Your task to perform on an android device: delete location history Image 0: 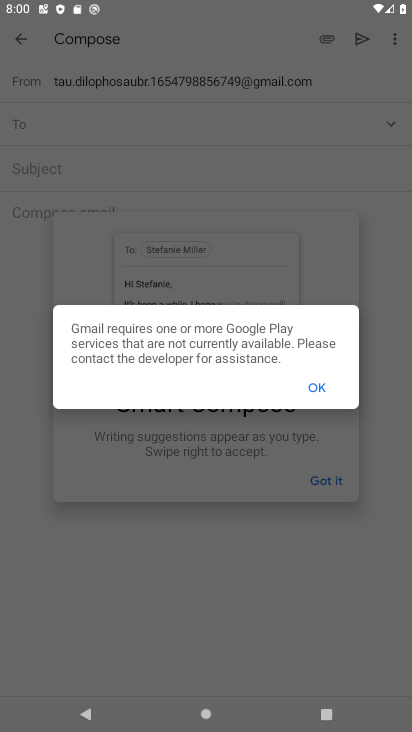
Step 0: press home button
Your task to perform on an android device: delete location history Image 1: 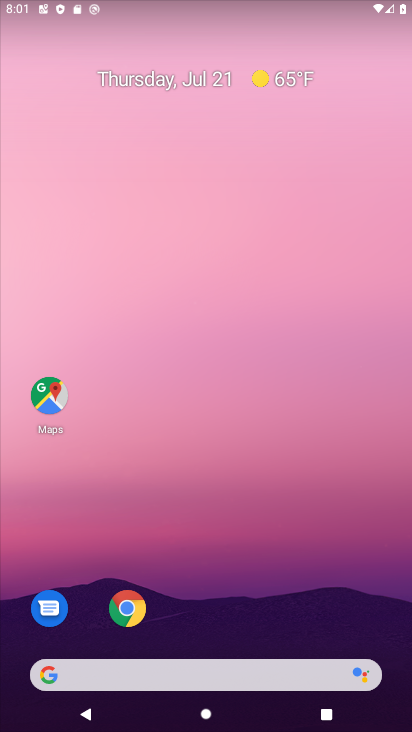
Step 1: click (51, 397)
Your task to perform on an android device: delete location history Image 2: 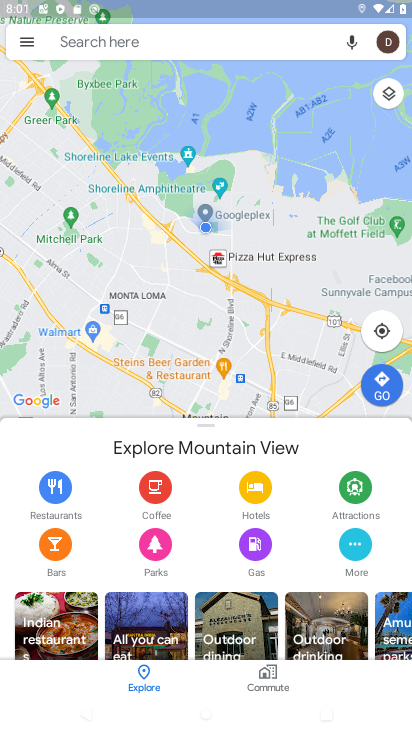
Step 2: click (29, 42)
Your task to perform on an android device: delete location history Image 3: 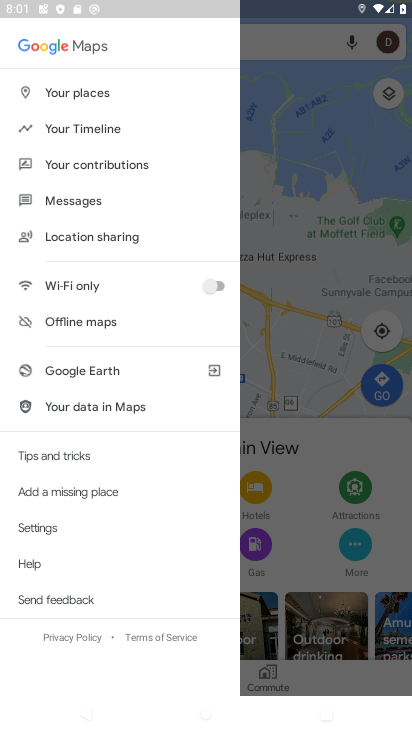
Step 3: click (42, 528)
Your task to perform on an android device: delete location history Image 4: 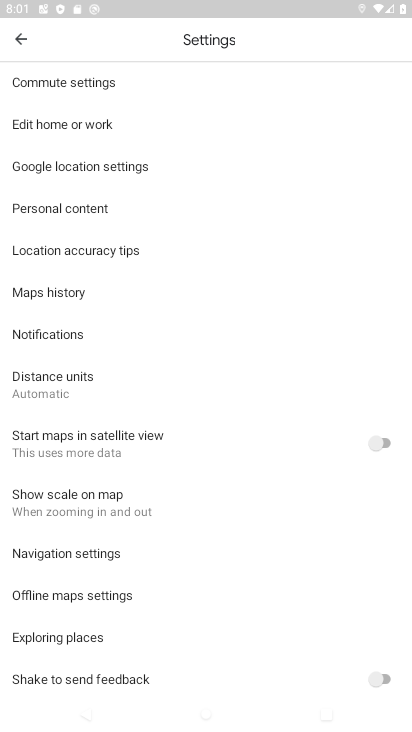
Step 4: click (88, 210)
Your task to perform on an android device: delete location history Image 5: 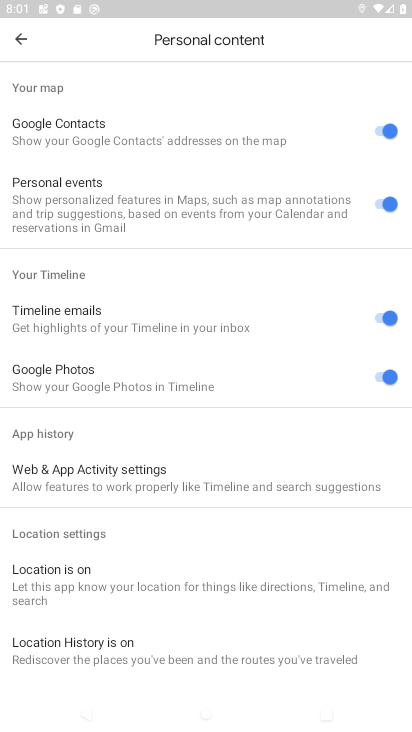
Step 5: drag from (189, 513) to (193, 415)
Your task to perform on an android device: delete location history Image 6: 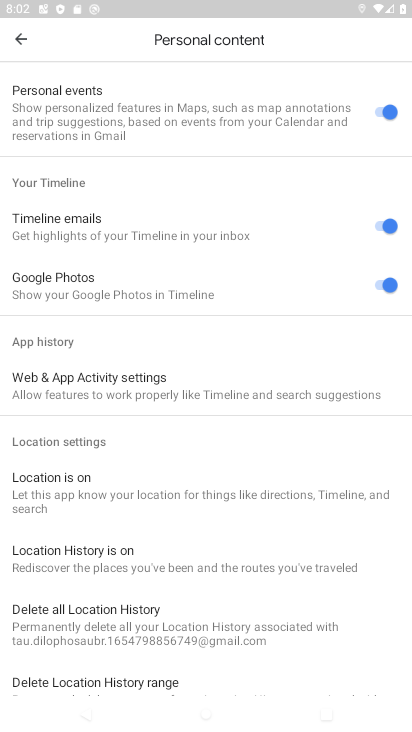
Step 6: drag from (179, 545) to (208, 458)
Your task to perform on an android device: delete location history Image 7: 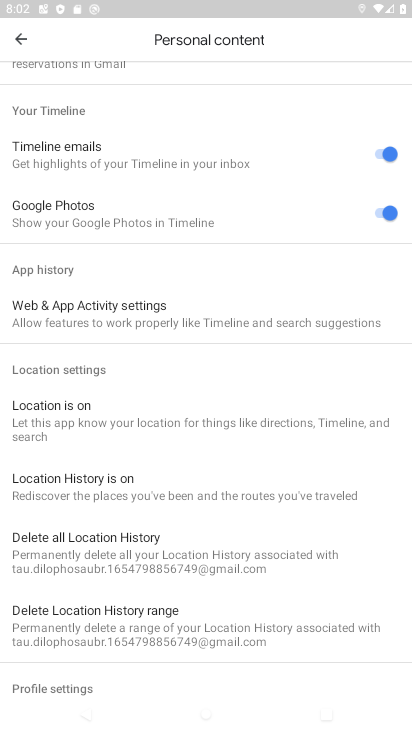
Step 7: click (129, 555)
Your task to perform on an android device: delete location history Image 8: 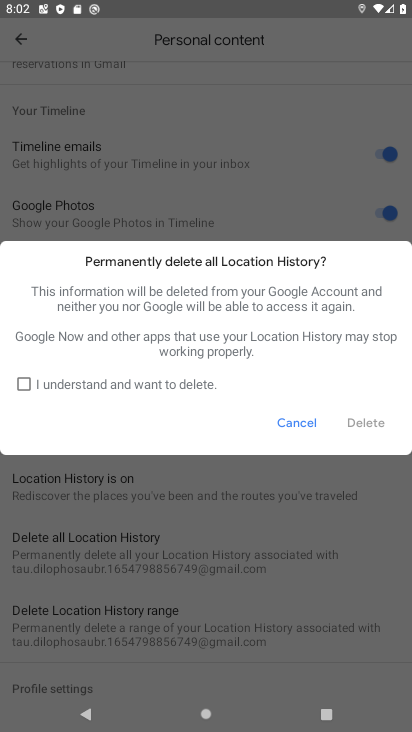
Step 8: click (27, 381)
Your task to perform on an android device: delete location history Image 9: 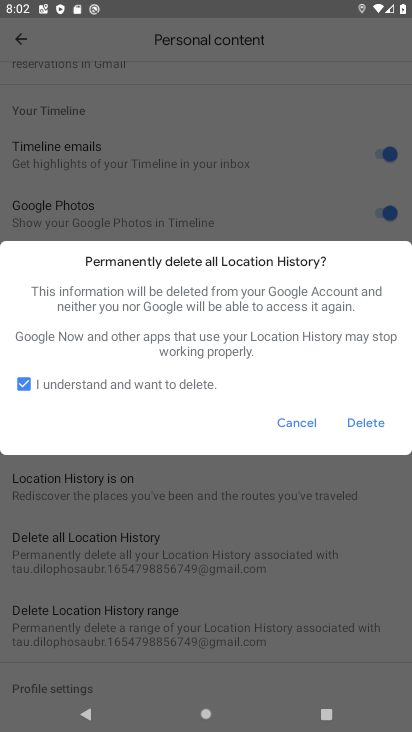
Step 9: click (368, 426)
Your task to perform on an android device: delete location history Image 10: 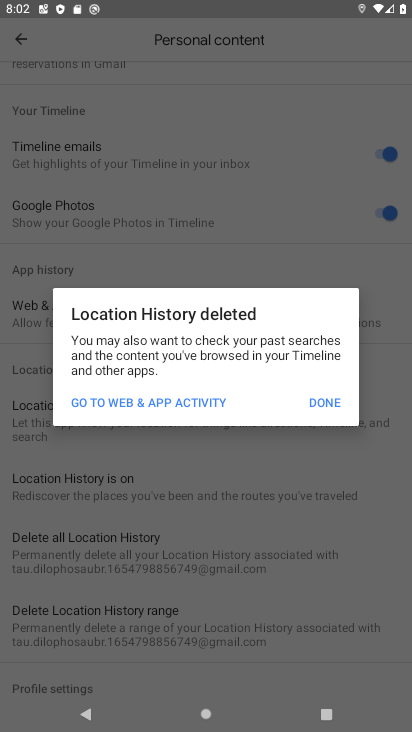
Step 10: click (327, 407)
Your task to perform on an android device: delete location history Image 11: 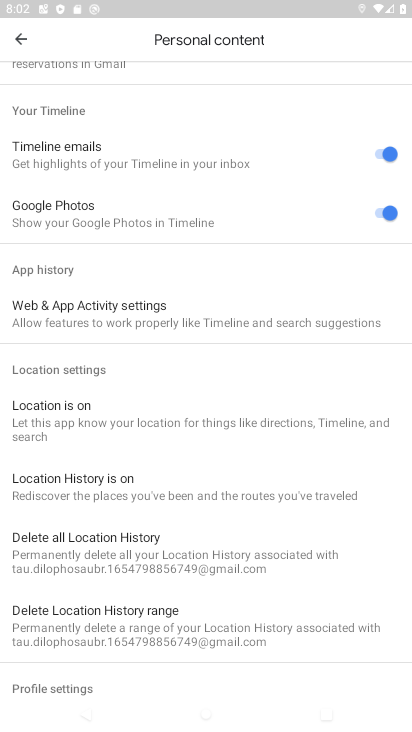
Step 11: task complete